Your task to perform on an android device: allow notifications from all sites in the chrome app Image 0: 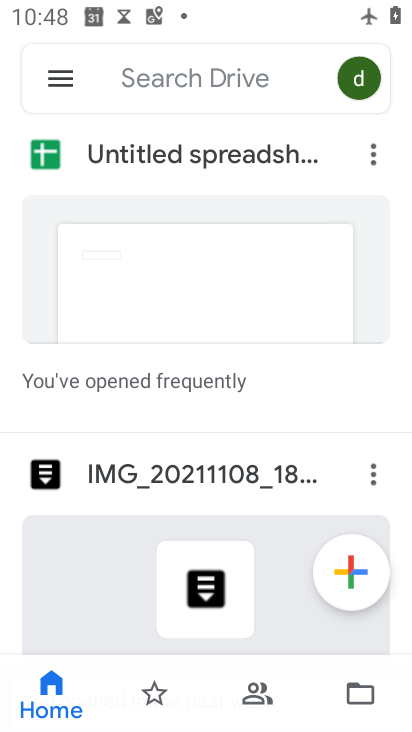
Step 0: press home button
Your task to perform on an android device: allow notifications from all sites in the chrome app Image 1: 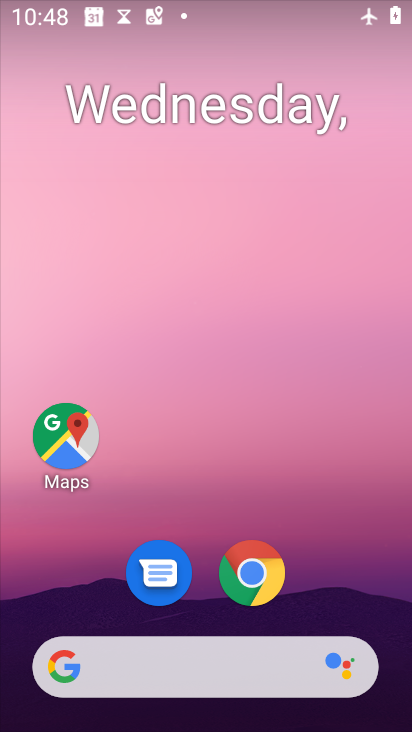
Step 1: click (258, 560)
Your task to perform on an android device: allow notifications from all sites in the chrome app Image 2: 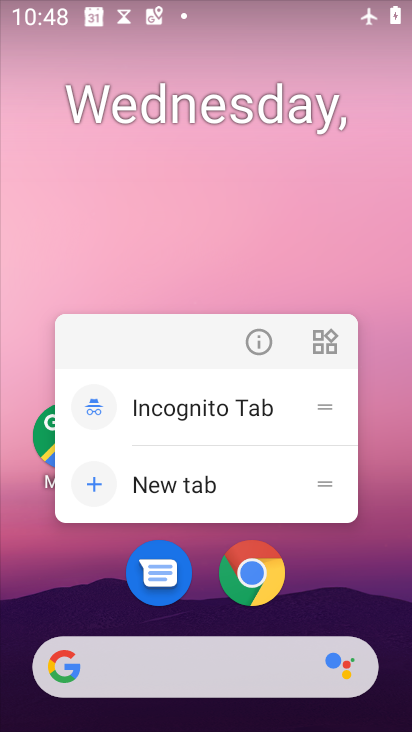
Step 2: click (244, 566)
Your task to perform on an android device: allow notifications from all sites in the chrome app Image 3: 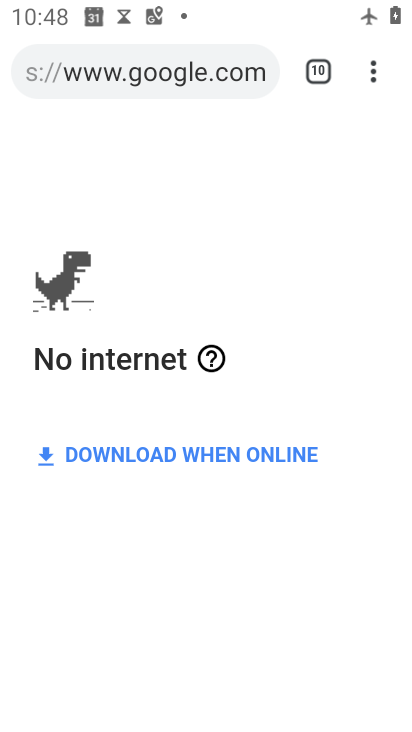
Step 3: click (369, 63)
Your task to perform on an android device: allow notifications from all sites in the chrome app Image 4: 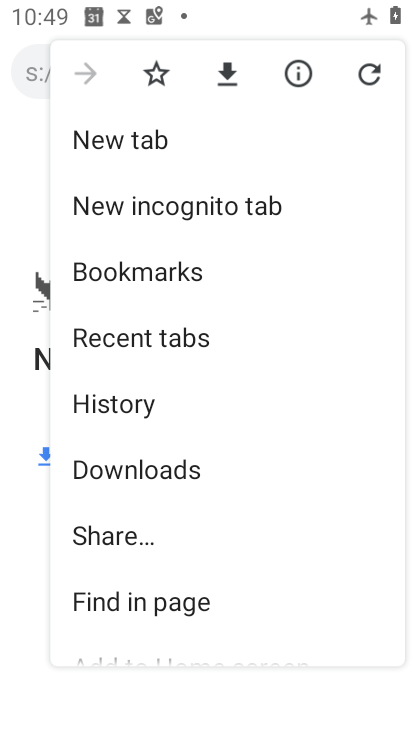
Step 4: drag from (163, 506) to (214, 209)
Your task to perform on an android device: allow notifications from all sites in the chrome app Image 5: 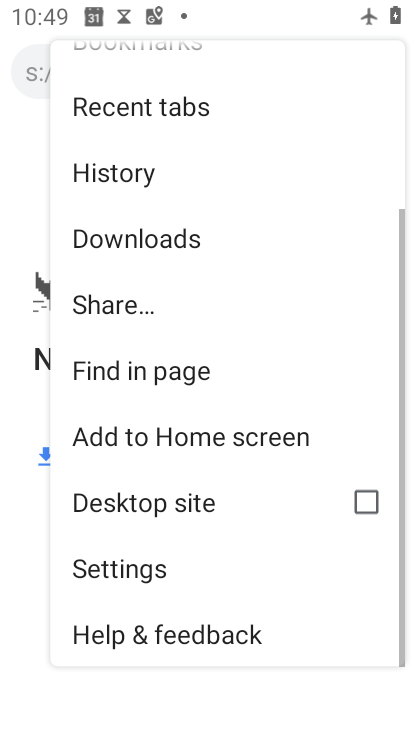
Step 5: click (150, 565)
Your task to perform on an android device: allow notifications from all sites in the chrome app Image 6: 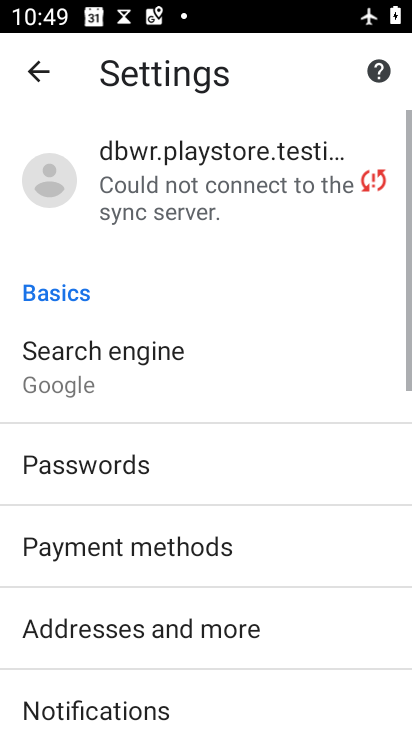
Step 6: drag from (226, 579) to (238, 247)
Your task to perform on an android device: allow notifications from all sites in the chrome app Image 7: 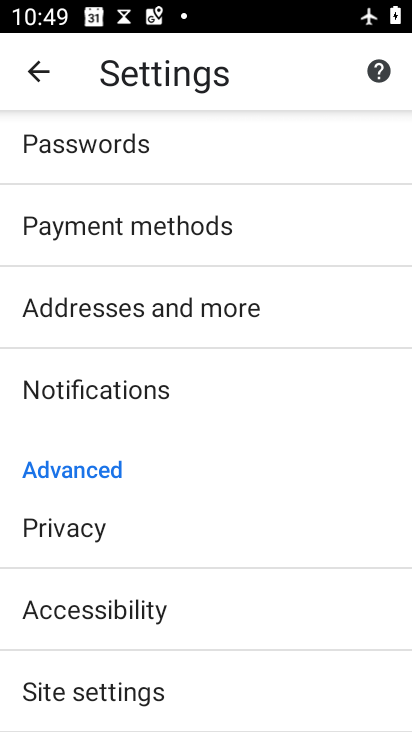
Step 7: click (117, 682)
Your task to perform on an android device: allow notifications from all sites in the chrome app Image 8: 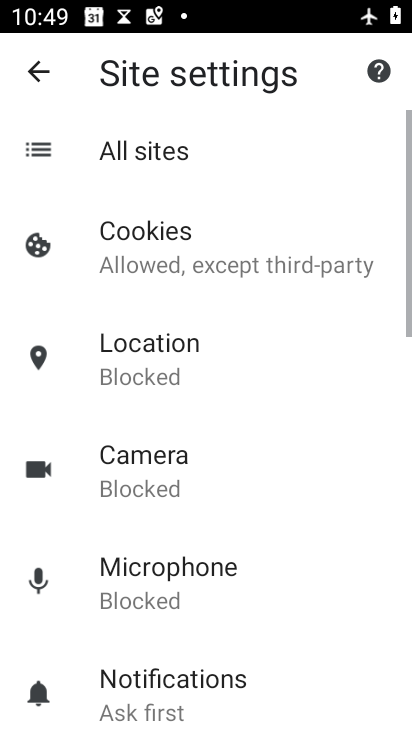
Step 8: click (178, 259)
Your task to perform on an android device: allow notifications from all sites in the chrome app Image 9: 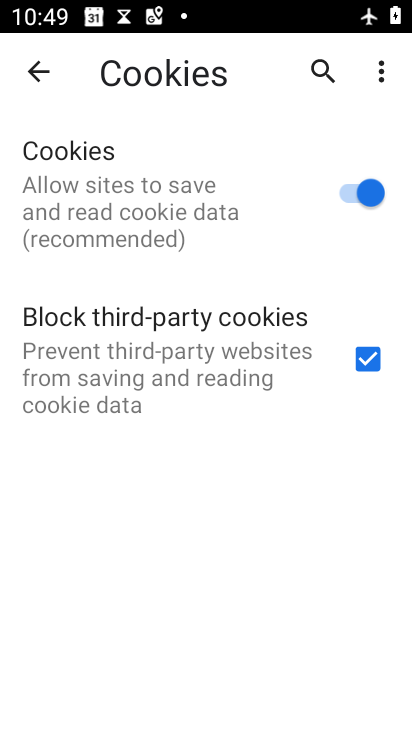
Step 9: click (38, 74)
Your task to perform on an android device: allow notifications from all sites in the chrome app Image 10: 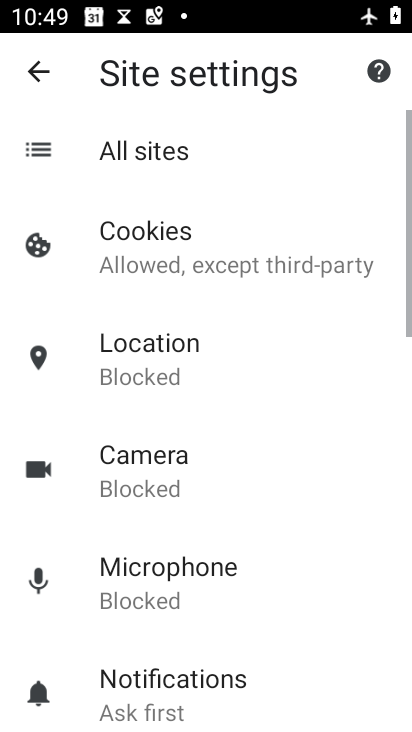
Step 10: click (132, 354)
Your task to perform on an android device: allow notifications from all sites in the chrome app Image 11: 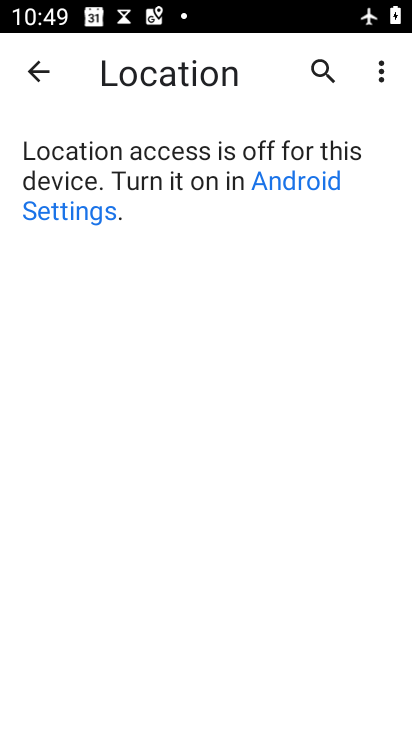
Step 11: click (40, 80)
Your task to perform on an android device: allow notifications from all sites in the chrome app Image 12: 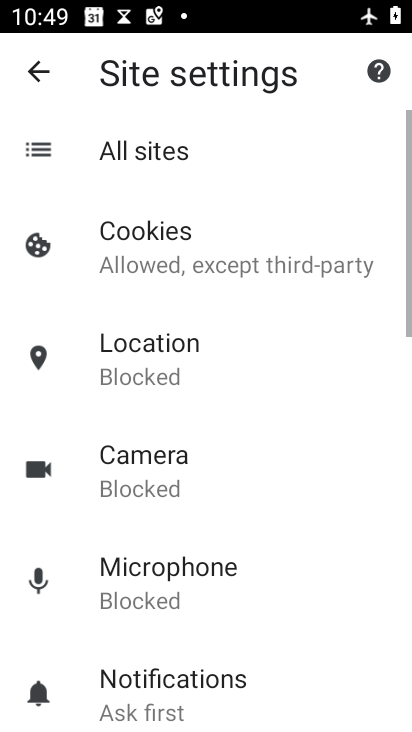
Step 12: click (126, 462)
Your task to perform on an android device: allow notifications from all sites in the chrome app Image 13: 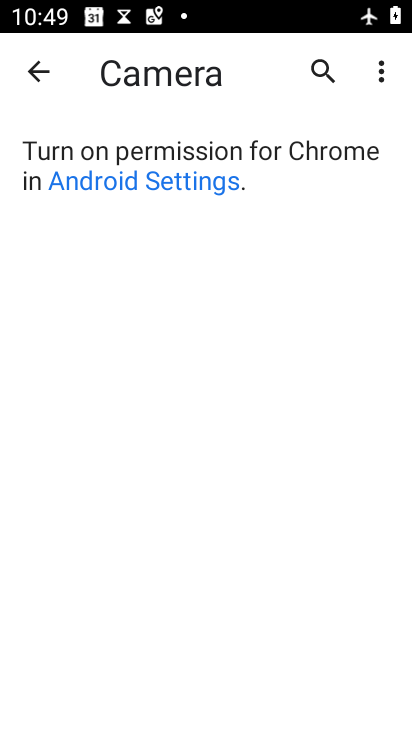
Step 13: click (37, 65)
Your task to perform on an android device: allow notifications from all sites in the chrome app Image 14: 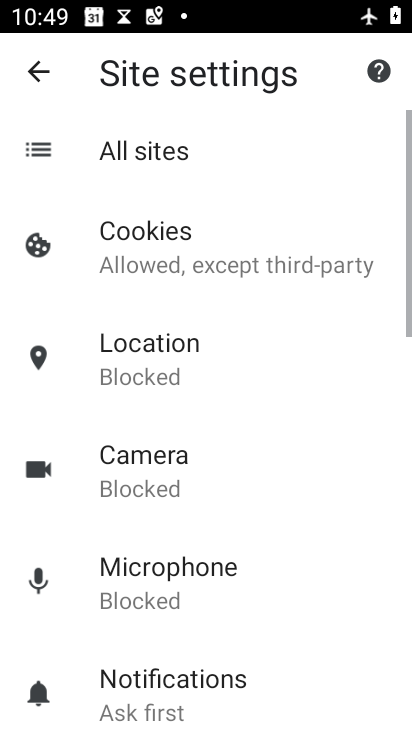
Step 14: click (119, 601)
Your task to perform on an android device: allow notifications from all sites in the chrome app Image 15: 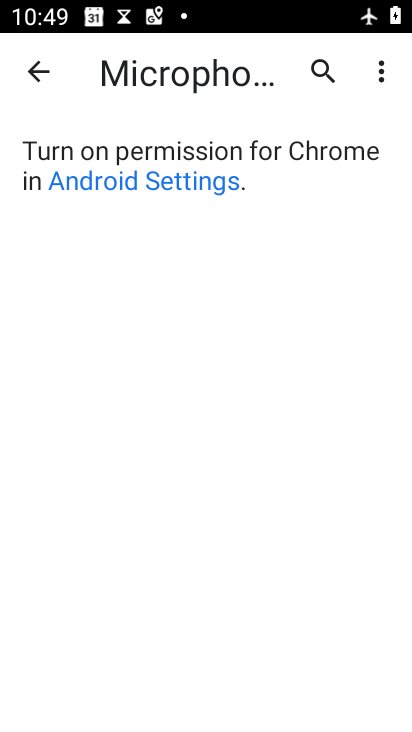
Step 15: click (41, 81)
Your task to perform on an android device: allow notifications from all sites in the chrome app Image 16: 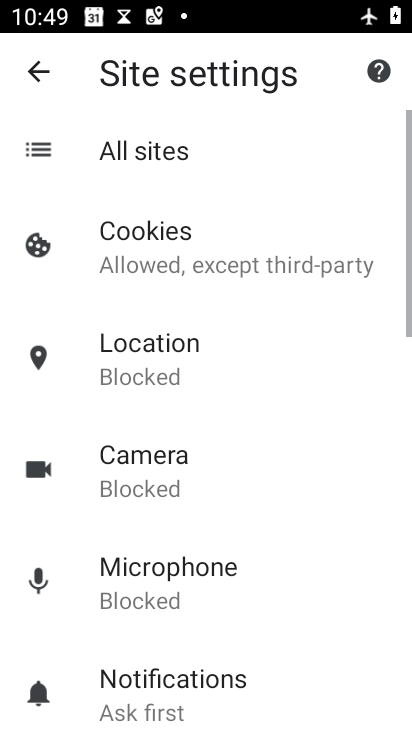
Step 16: drag from (181, 607) to (238, 204)
Your task to perform on an android device: allow notifications from all sites in the chrome app Image 17: 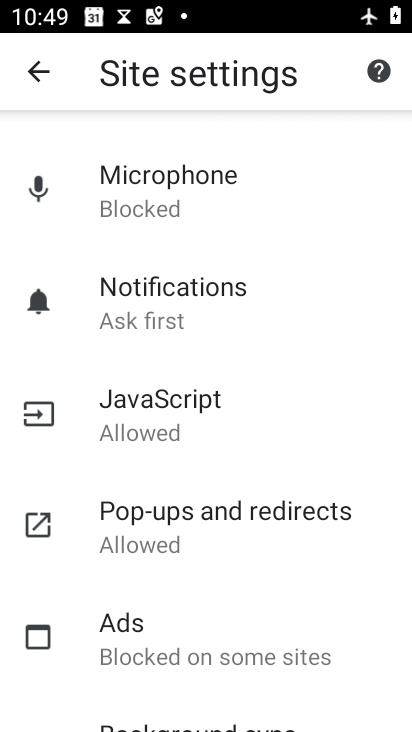
Step 17: click (141, 343)
Your task to perform on an android device: allow notifications from all sites in the chrome app Image 18: 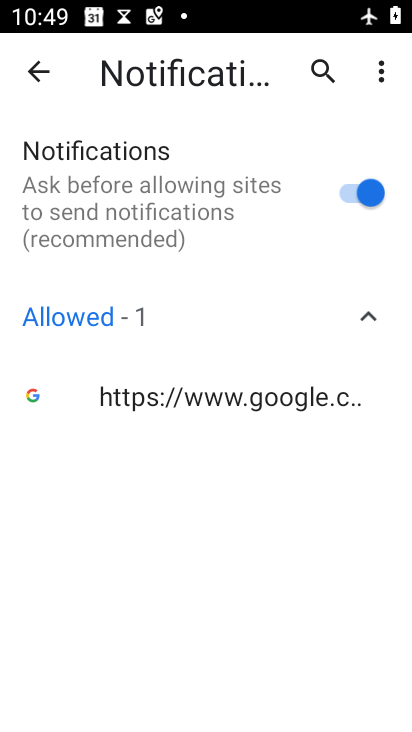
Step 18: click (39, 71)
Your task to perform on an android device: allow notifications from all sites in the chrome app Image 19: 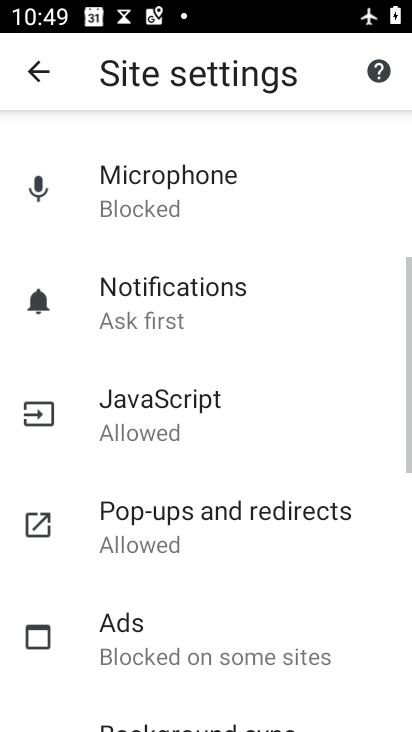
Step 19: click (173, 516)
Your task to perform on an android device: allow notifications from all sites in the chrome app Image 20: 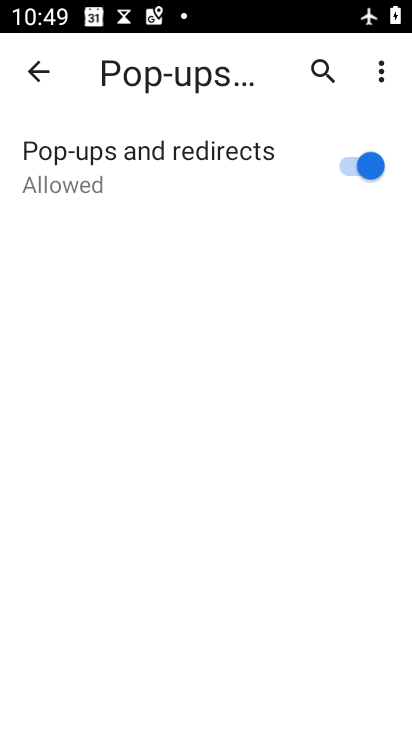
Step 20: click (35, 60)
Your task to perform on an android device: allow notifications from all sites in the chrome app Image 21: 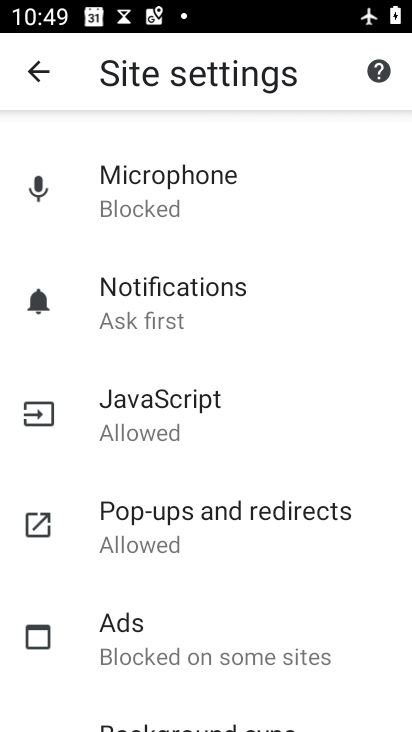
Step 21: click (184, 649)
Your task to perform on an android device: allow notifications from all sites in the chrome app Image 22: 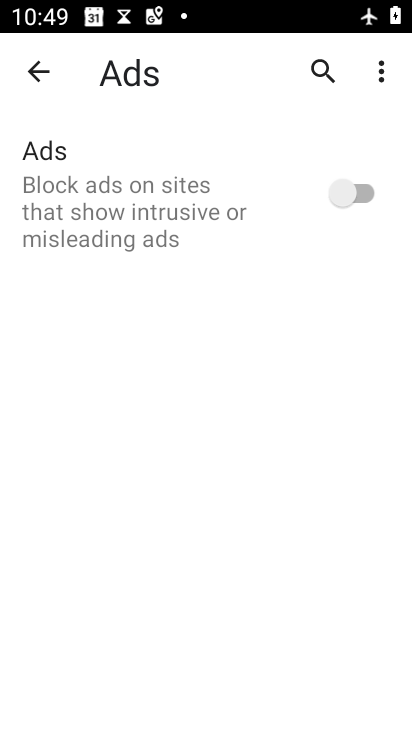
Step 22: click (346, 196)
Your task to perform on an android device: allow notifications from all sites in the chrome app Image 23: 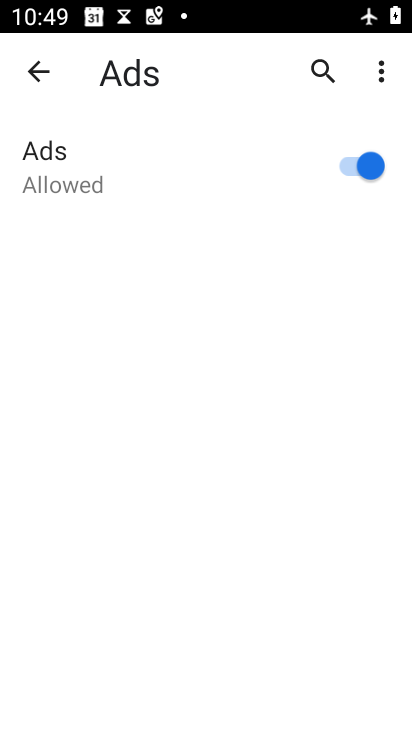
Step 23: click (26, 66)
Your task to perform on an android device: allow notifications from all sites in the chrome app Image 24: 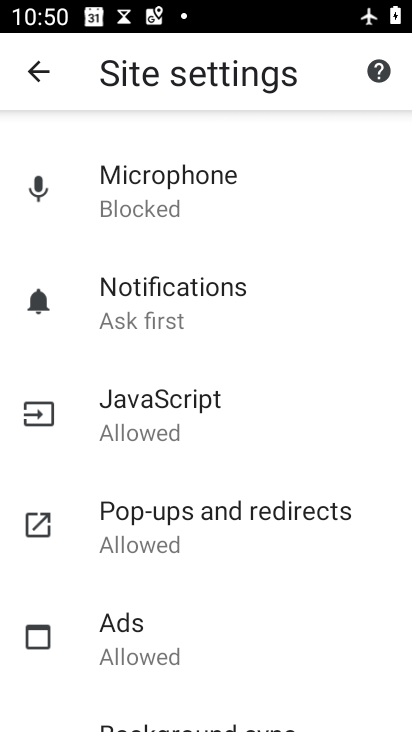
Step 24: task complete